Your task to perform on an android device: turn notification dots on Image 0: 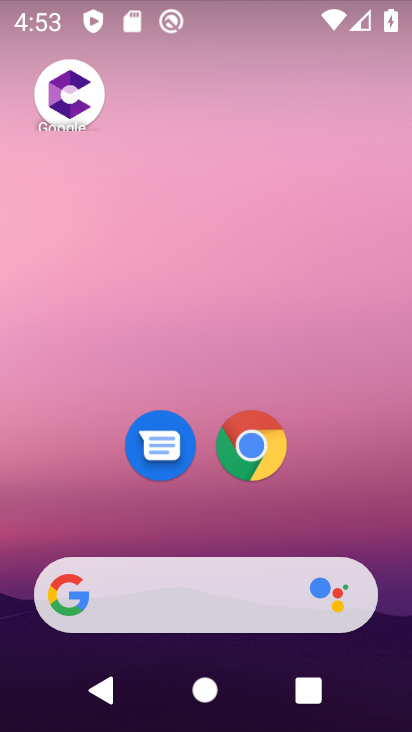
Step 0: drag from (334, 511) to (349, 53)
Your task to perform on an android device: turn notification dots on Image 1: 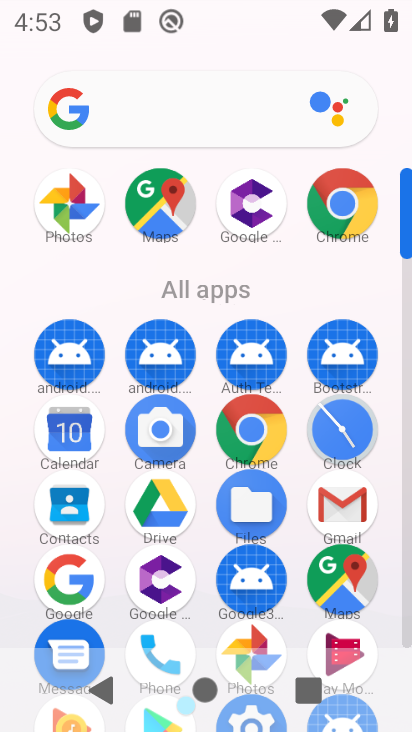
Step 1: drag from (289, 309) to (301, 41)
Your task to perform on an android device: turn notification dots on Image 2: 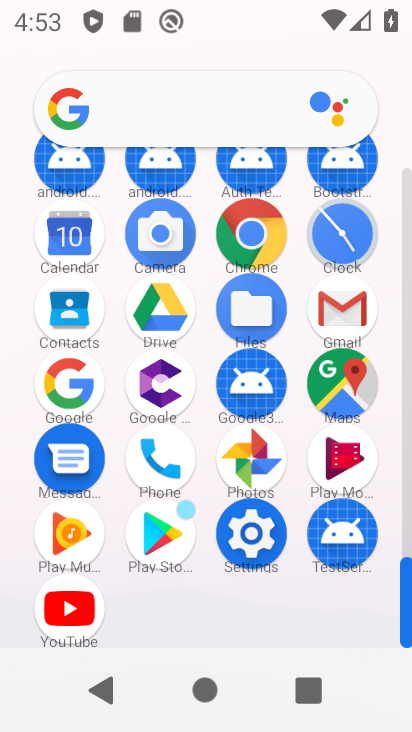
Step 2: click (251, 535)
Your task to perform on an android device: turn notification dots on Image 3: 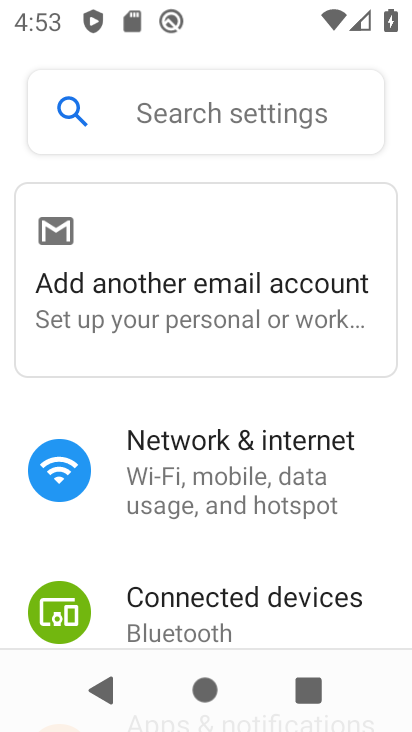
Step 3: drag from (368, 554) to (343, 241)
Your task to perform on an android device: turn notification dots on Image 4: 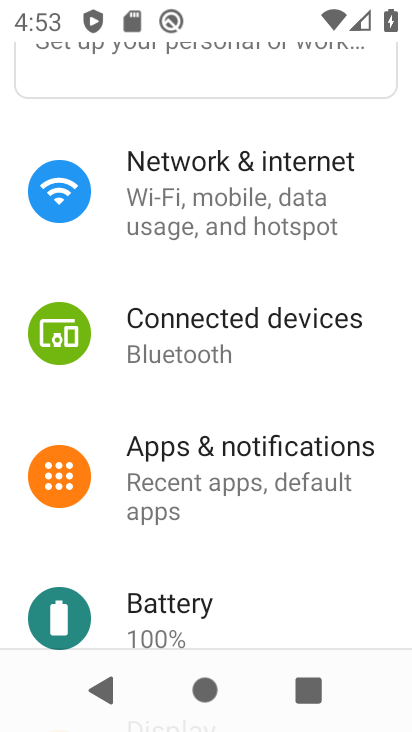
Step 4: drag from (353, 576) to (330, 209)
Your task to perform on an android device: turn notification dots on Image 5: 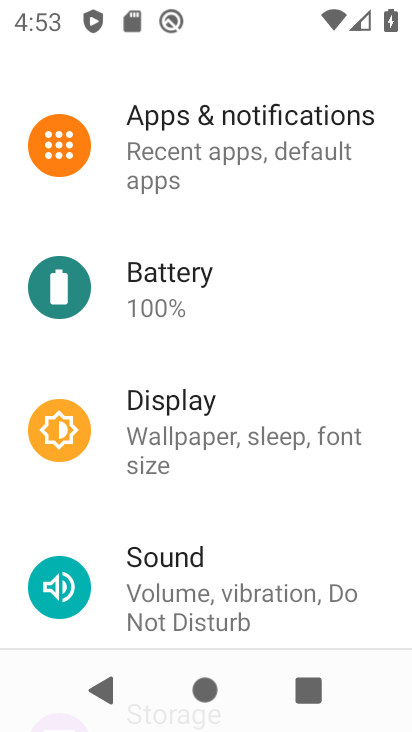
Step 5: drag from (371, 608) to (347, 291)
Your task to perform on an android device: turn notification dots on Image 6: 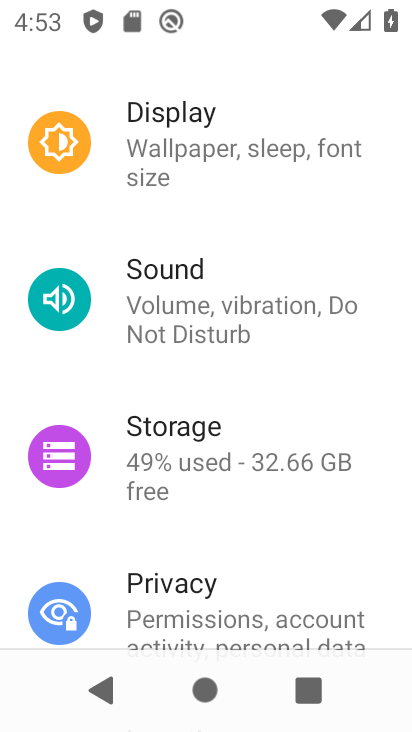
Step 6: drag from (314, 83) to (345, 581)
Your task to perform on an android device: turn notification dots on Image 7: 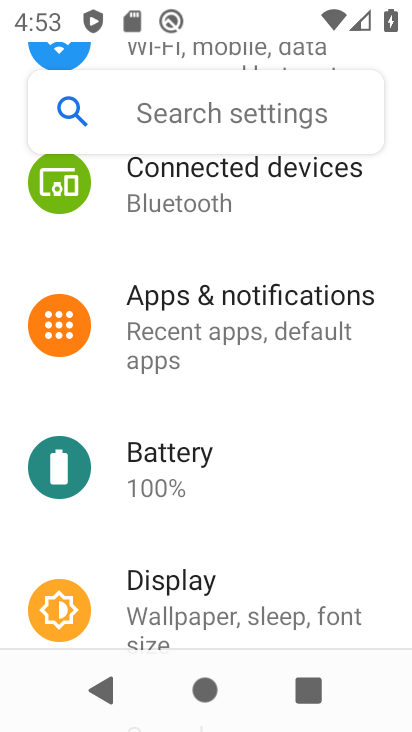
Step 7: click (237, 320)
Your task to perform on an android device: turn notification dots on Image 8: 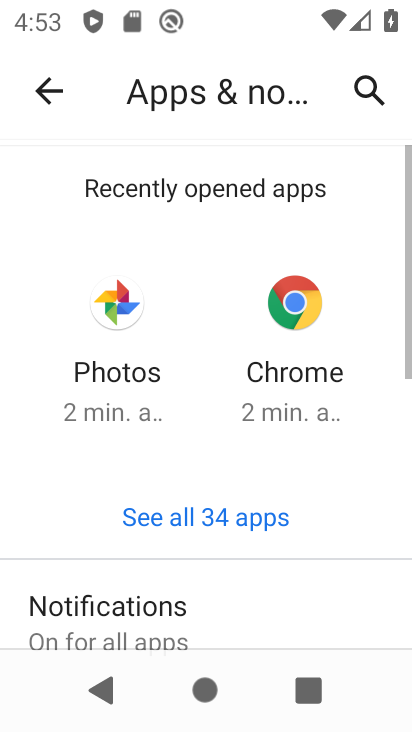
Step 8: click (129, 615)
Your task to perform on an android device: turn notification dots on Image 9: 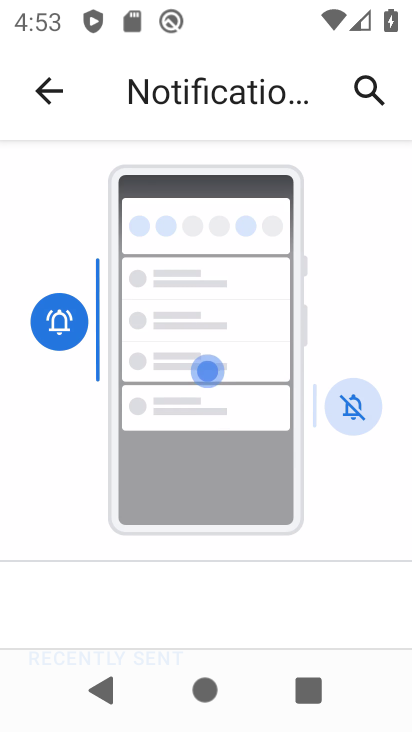
Step 9: drag from (320, 580) to (322, 196)
Your task to perform on an android device: turn notification dots on Image 10: 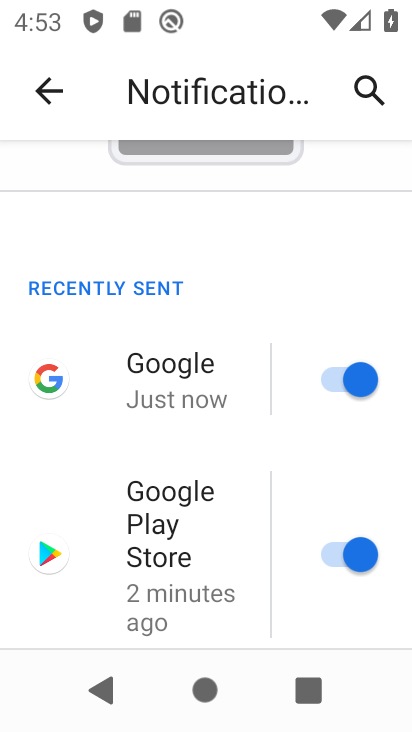
Step 10: drag from (301, 589) to (294, 196)
Your task to perform on an android device: turn notification dots on Image 11: 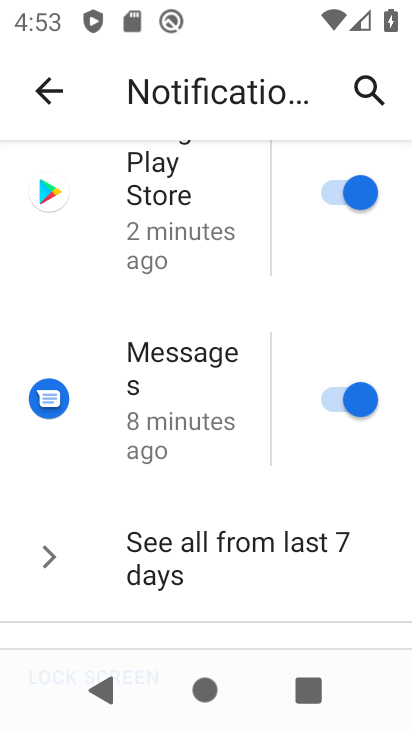
Step 11: drag from (269, 574) to (259, 249)
Your task to perform on an android device: turn notification dots on Image 12: 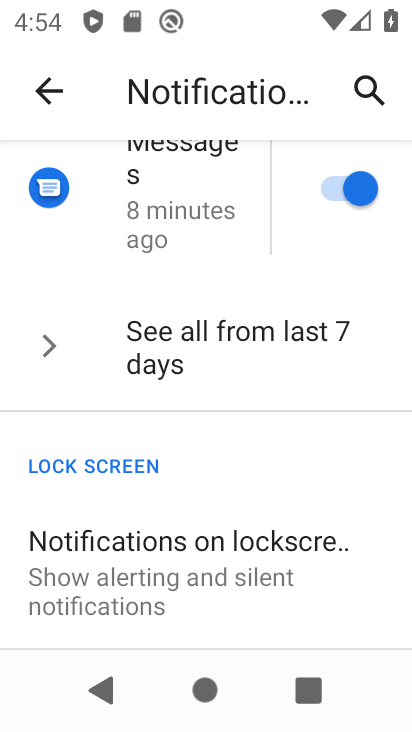
Step 12: drag from (335, 591) to (276, 165)
Your task to perform on an android device: turn notification dots on Image 13: 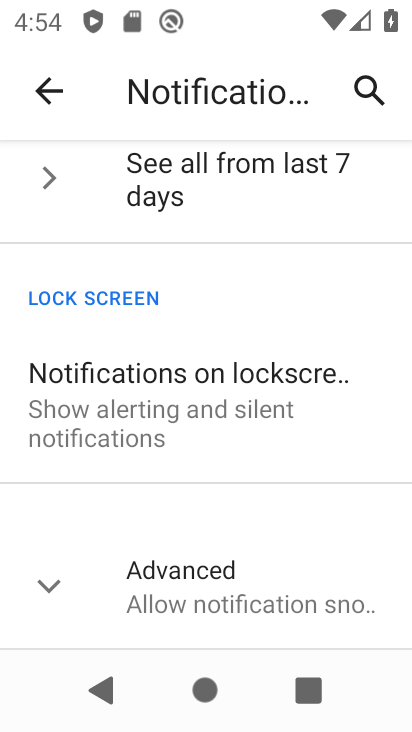
Step 13: click (239, 590)
Your task to perform on an android device: turn notification dots on Image 14: 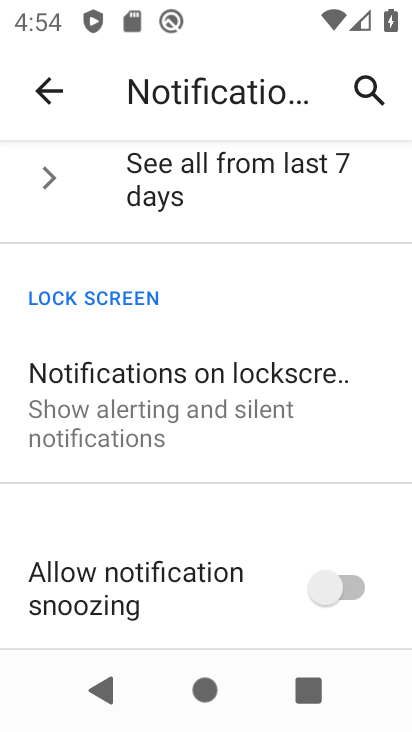
Step 14: task complete